Your task to perform on an android device: allow notifications from all sites in the chrome app Image 0: 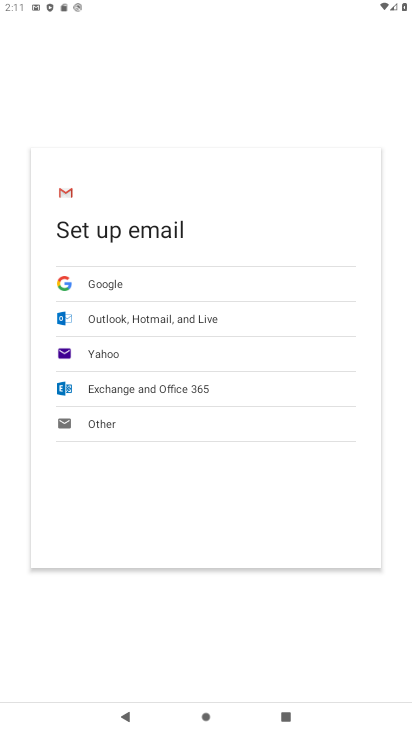
Step 0: press home button
Your task to perform on an android device: allow notifications from all sites in the chrome app Image 1: 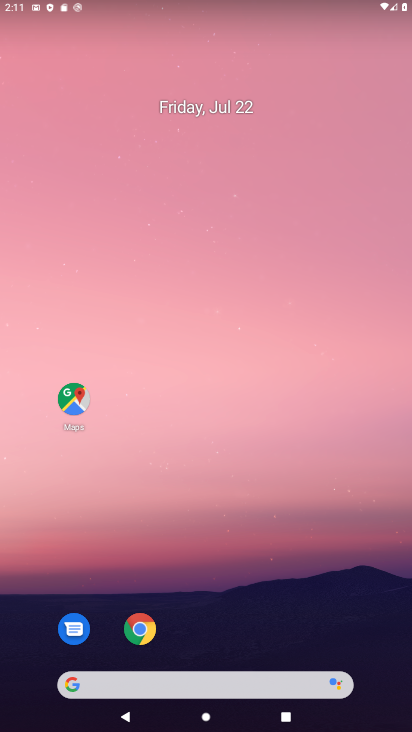
Step 1: click (133, 629)
Your task to perform on an android device: allow notifications from all sites in the chrome app Image 2: 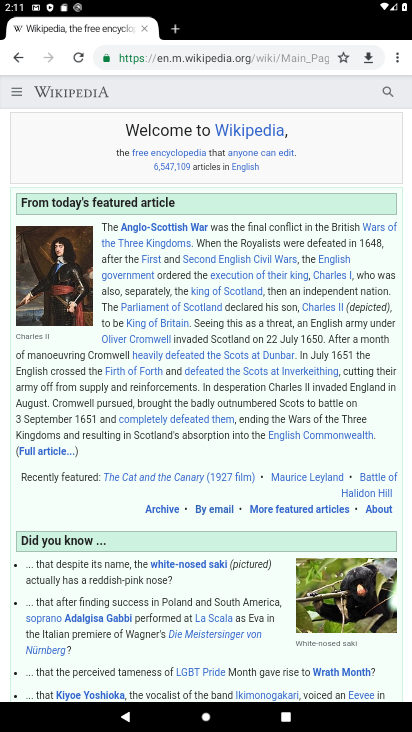
Step 2: click (402, 55)
Your task to perform on an android device: allow notifications from all sites in the chrome app Image 3: 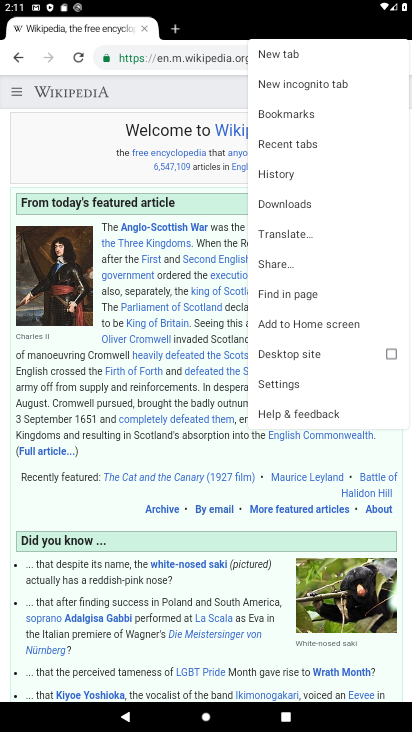
Step 3: click (303, 387)
Your task to perform on an android device: allow notifications from all sites in the chrome app Image 4: 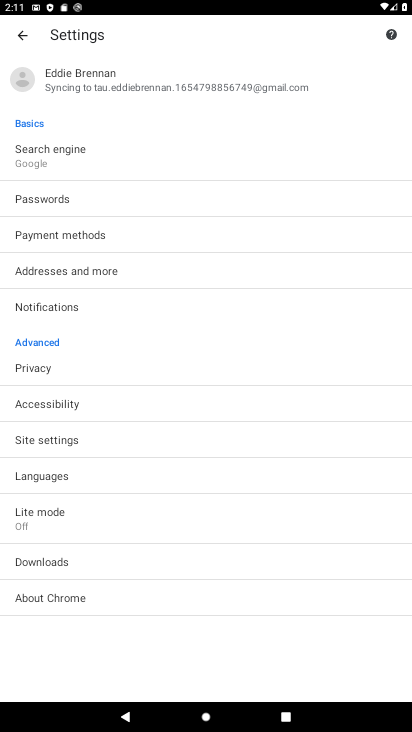
Step 4: click (73, 308)
Your task to perform on an android device: allow notifications from all sites in the chrome app Image 5: 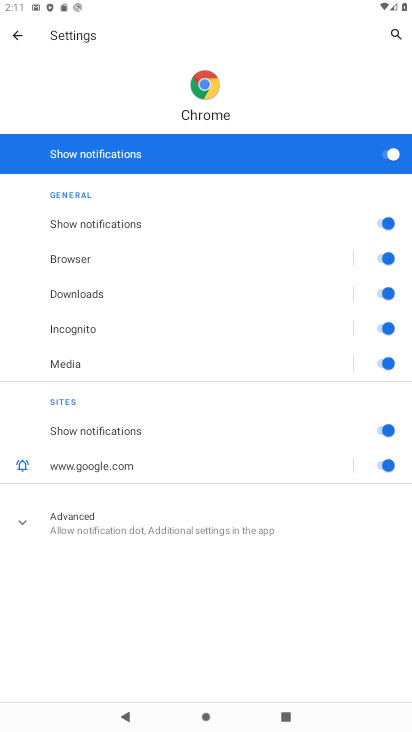
Step 5: task complete